Your task to perform on an android device: check out phone information Image 0: 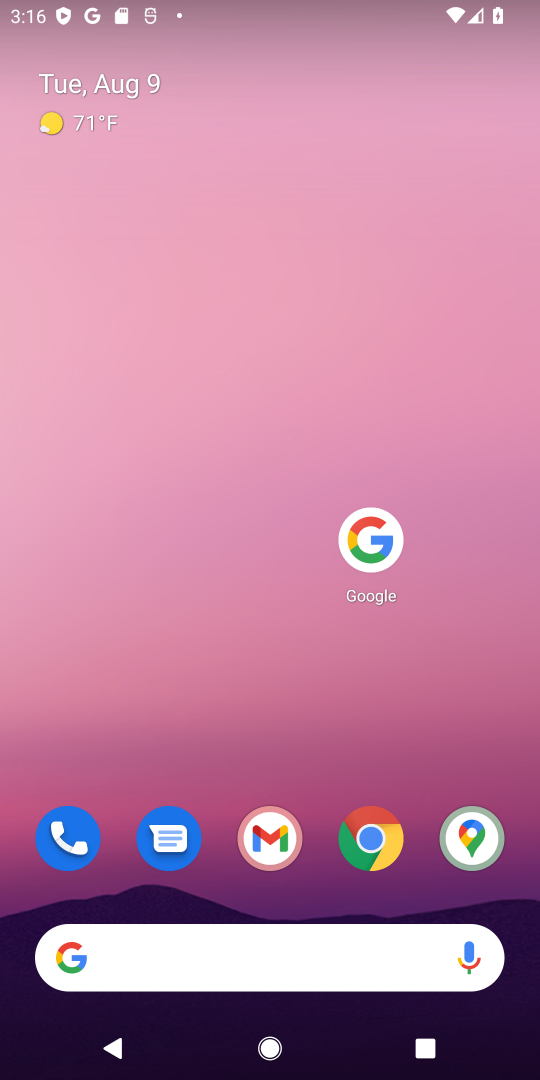
Step 0: drag from (240, 700) to (297, 78)
Your task to perform on an android device: check out phone information Image 1: 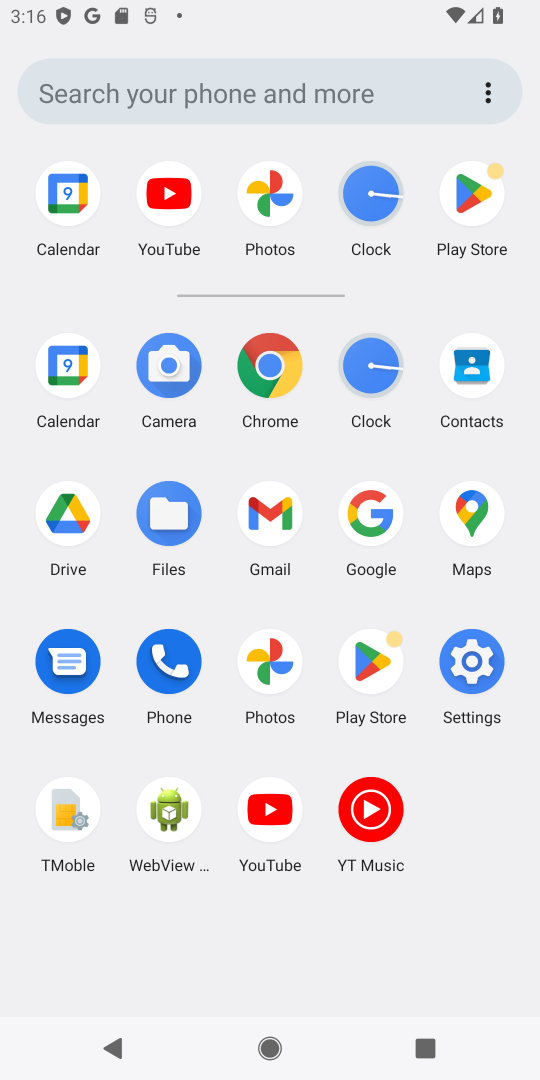
Step 1: click (192, 676)
Your task to perform on an android device: check out phone information Image 2: 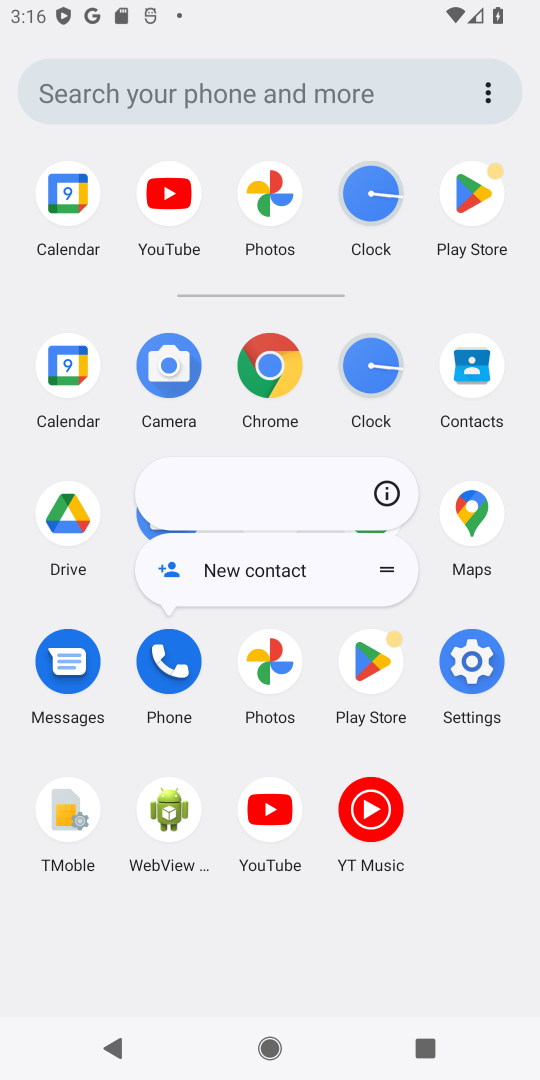
Step 2: click (380, 497)
Your task to perform on an android device: check out phone information Image 3: 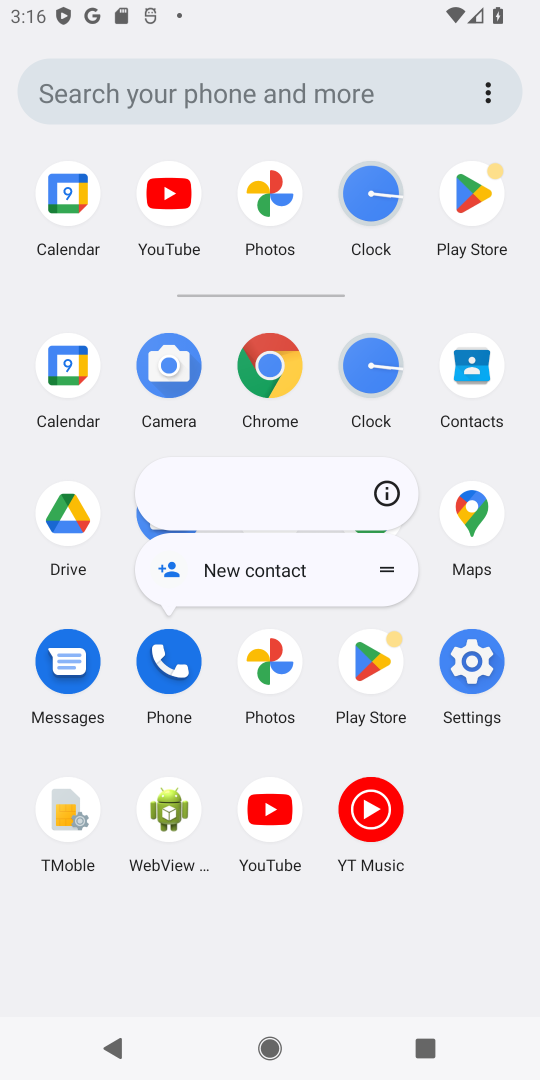
Step 3: click (402, 505)
Your task to perform on an android device: check out phone information Image 4: 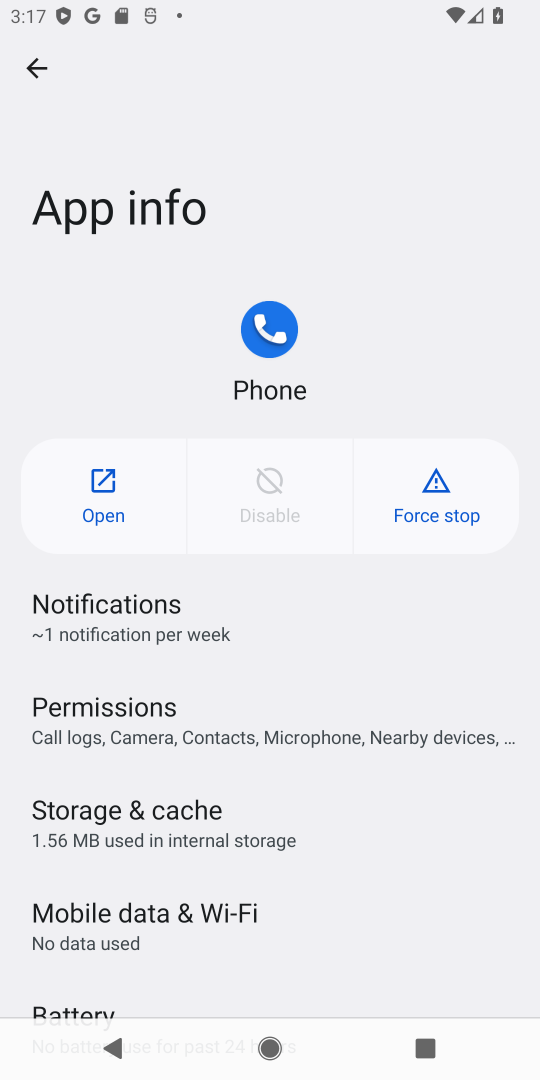
Step 4: task complete